Your task to perform on an android device: Open Yahoo.com Image 0: 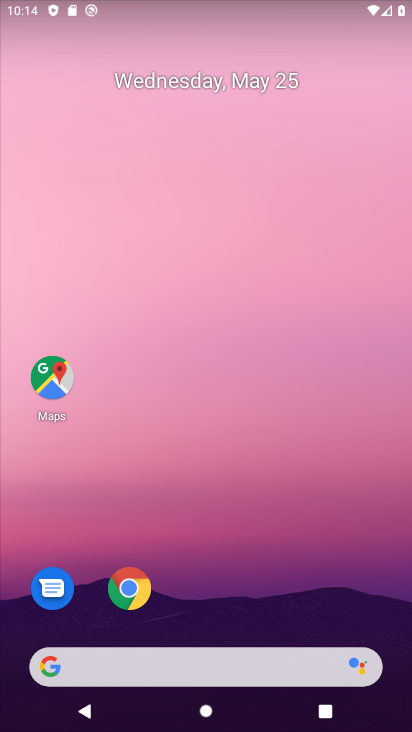
Step 0: click (137, 585)
Your task to perform on an android device: Open Yahoo.com Image 1: 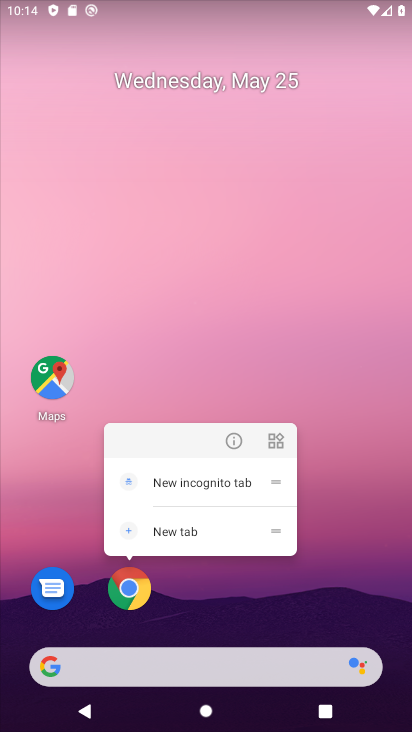
Step 1: click (121, 592)
Your task to perform on an android device: Open Yahoo.com Image 2: 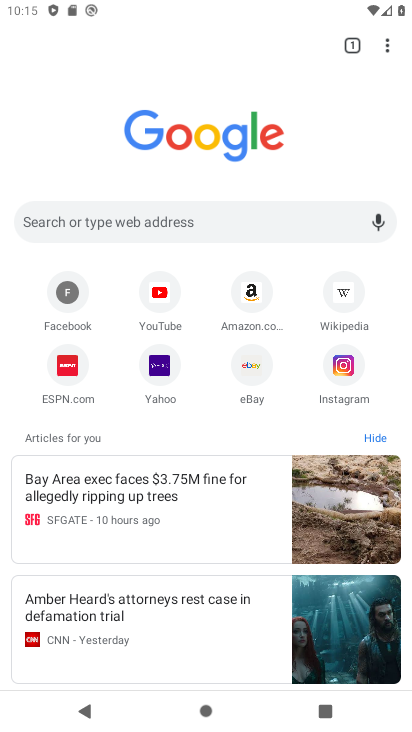
Step 2: click (169, 366)
Your task to perform on an android device: Open Yahoo.com Image 3: 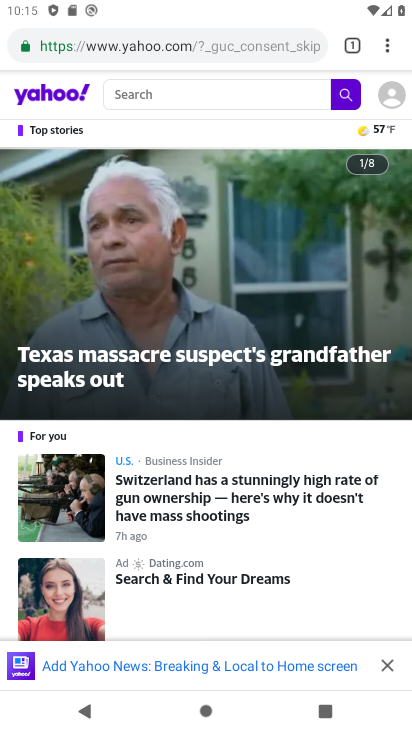
Step 3: task complete